Your task to perform on an android device: turn on the 12-hour format for clock Image 0: 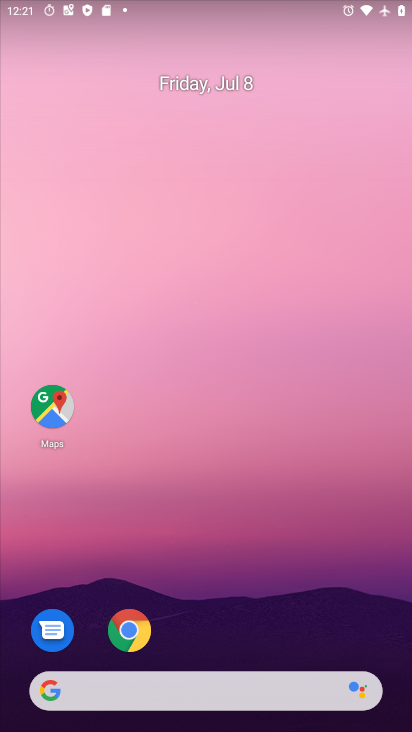
Step 0: drag from (223, 618) to (208, 258)
Your task to perform on an android device: turn on the 12-hour format for clock Image 1: 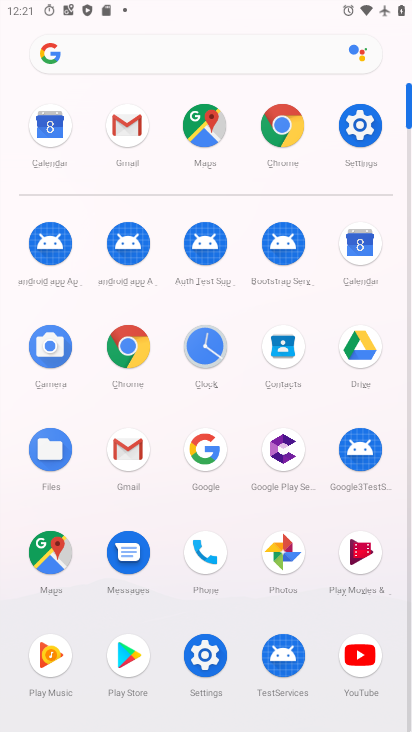
Step 1: click (200, 347)
Your task to perform on an android device: turn on the 12-hour format for clock Image 2: 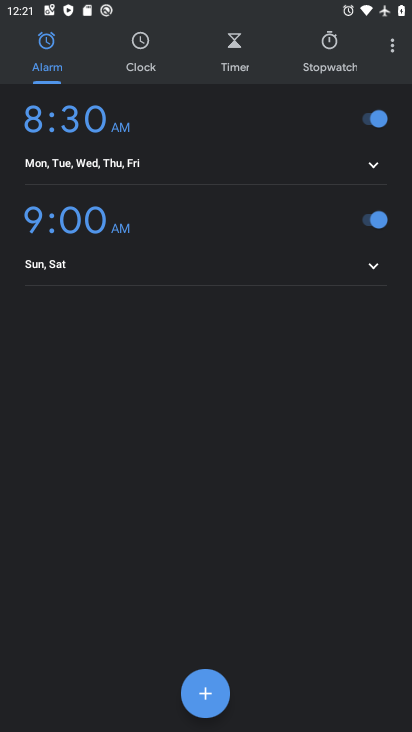
Step 2: click (398, 49)
Your task to perform on an android device: turn on the 12-hour format for clock Image 3: 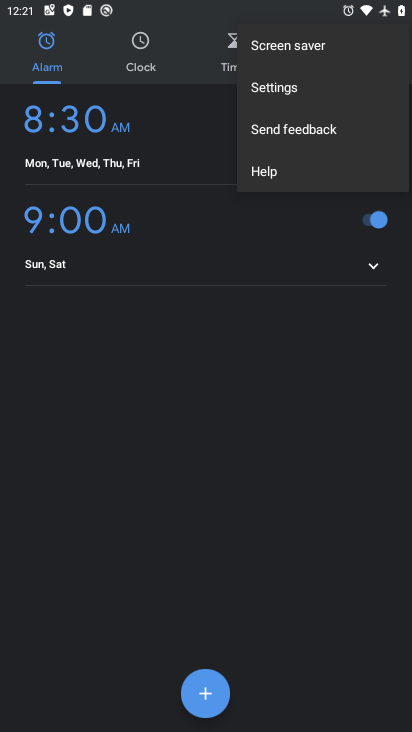
Step 3: click (338, 83)
Your task to perform on an android device: turn on the 12-hour format for clock Image 4: 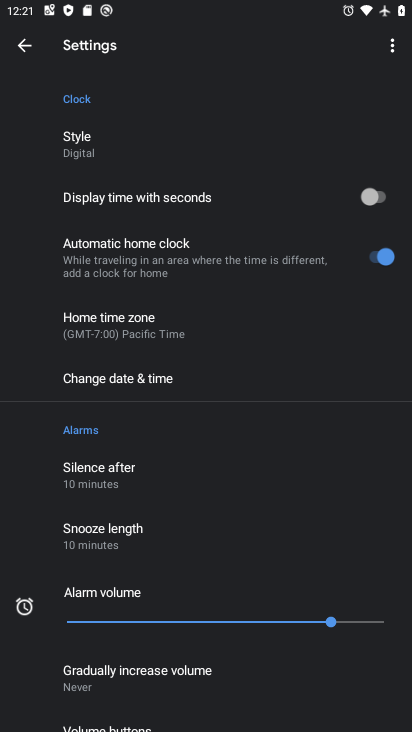
Step 4: click (127, 386)
Your task to perform on an android device: turn on the 12-hour format for clock Image 5: 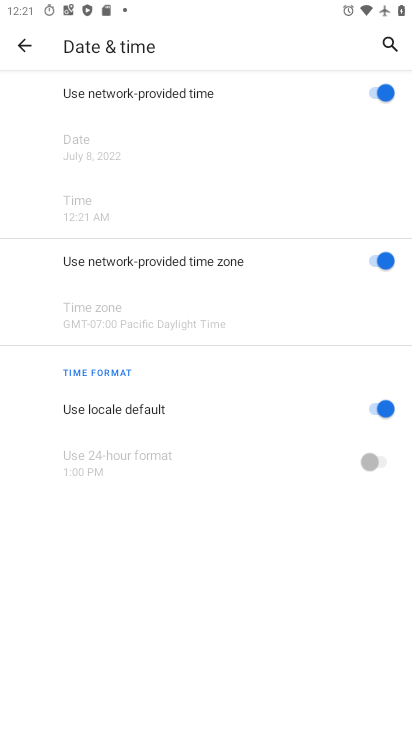
Step 5: task complete